Your task to perform on an android device: Open the calendar app, open the side menu, and click the "Day" option Image 0: 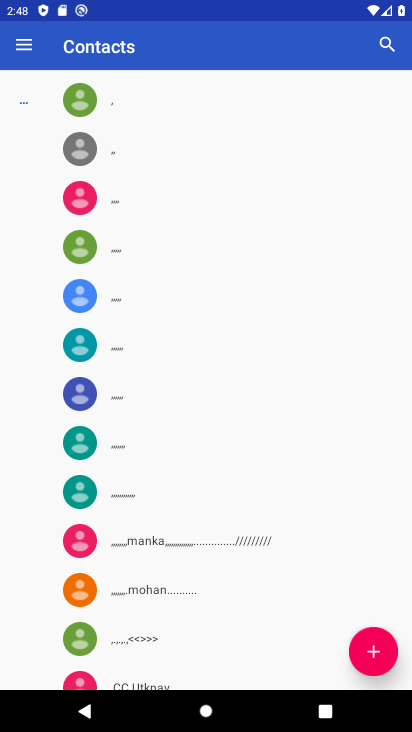
Step 0: press home button
Your task to perform on an android device: Open the calendar app, open the side menu, and click the "Day" option Image 1: 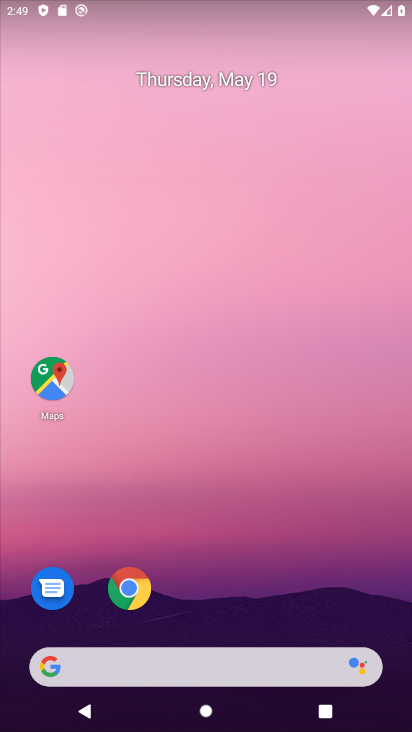
Step 1: drag from (349, 538) to (296, 206)
Your task to perform on an android device: Open the calendar app, open the side menu, and click the "Day" option Image 2: 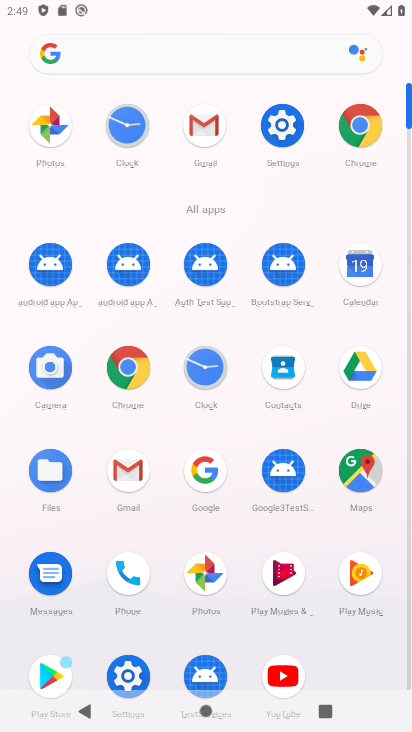
Step 2: click (376, 263)
Your task to perform on an android device: Open the calendar app, open the side menu, and click the "Day" option Image 3: 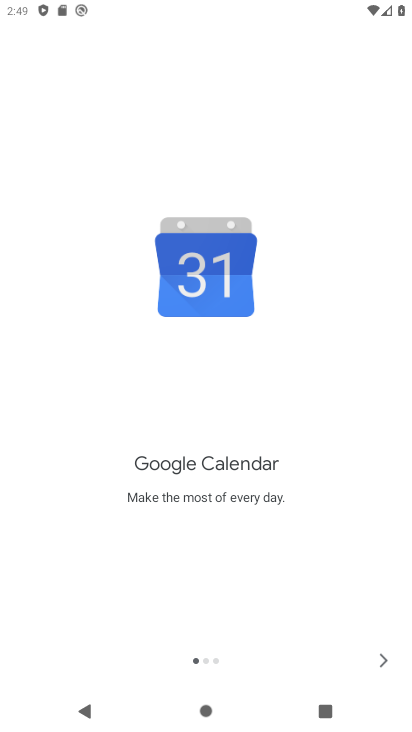
Step 3: click (378, 641)
Your task to perform on an android device: Open the calendar app, open the side menu, and click the "Day" option Image 4: 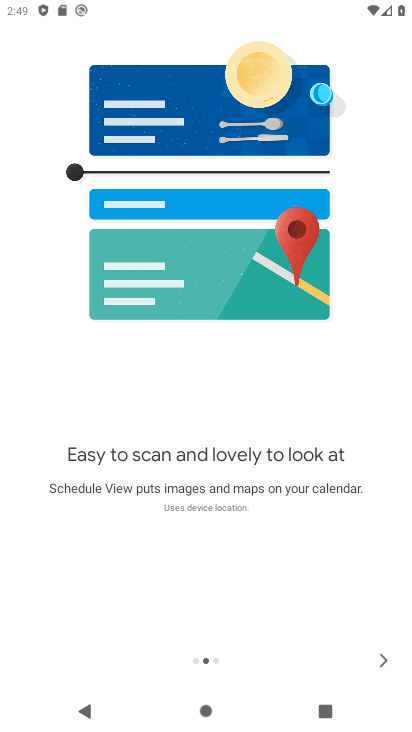
Step 4: click (385, 657)
Your task to perform on an android device: Open the calendar app, open the side menu, and click the "Day" option Image 5: 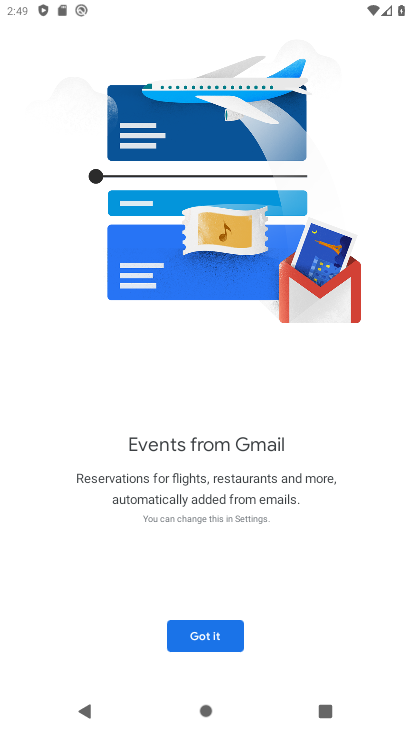
Step 5: click (385, 657)
Your task to perform on an android device: Open the calendar app, open the side menu, and click the "Day" option Image 6: 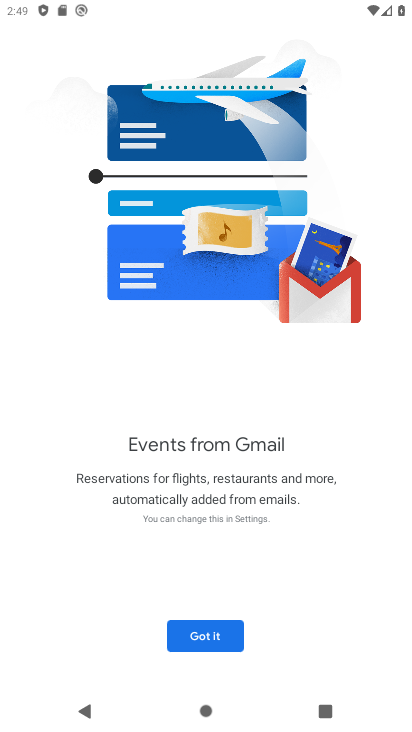
Step 6: click (205, 628)
Your task to perform on an android device: Open the calendar app, open the side menu, and click the "Day" option Image 7: 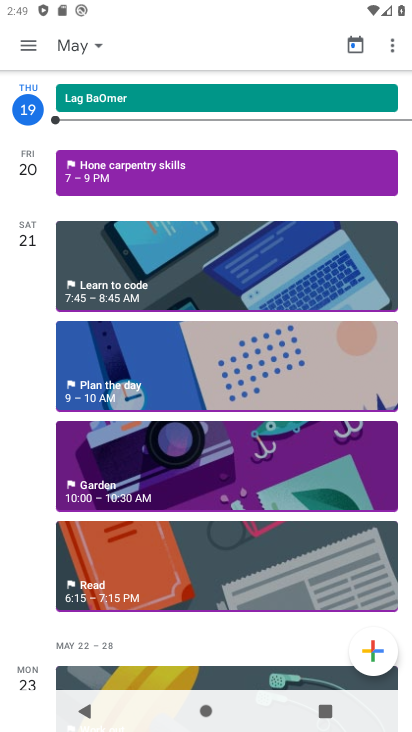
Step 7: click (27, 57)
Your task to perform on an android device: Open the calendar app, open the side menu, and click the "Day" option Image 8: 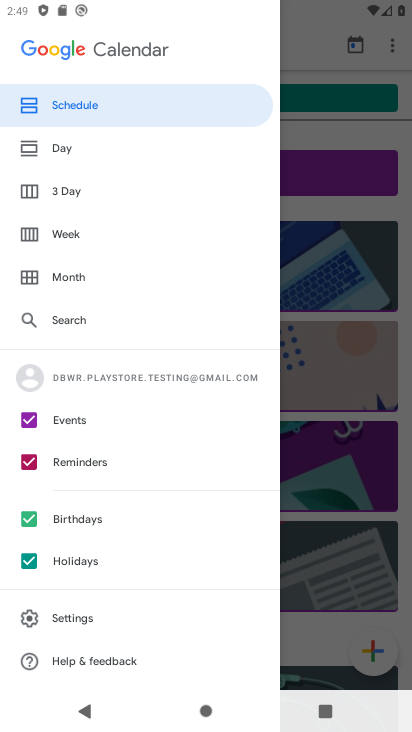
Step 8: click (74, 151)
Your task to perform on an android device: Open the calendar app, open the side menu, and click the "Day" option Image 9: 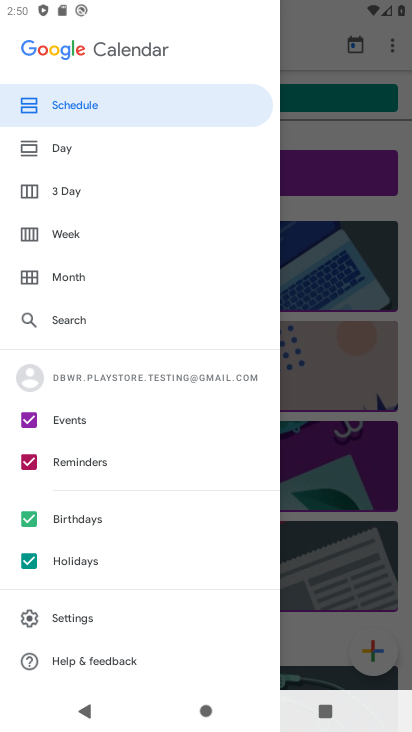
Step 9: click (60, 152)
Your task to perform on an android device: Open the calendar app, open the side menu, and click the "Day" option Image 10: 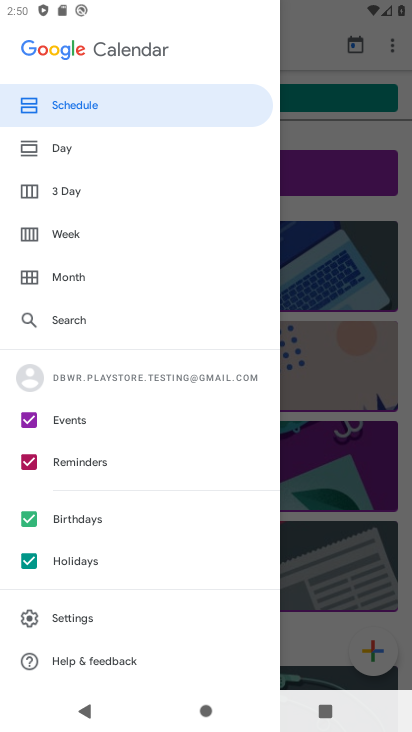
Step 10: click (17, 151)
Your task to perform on an android device: Open the calendar app, open the side menu, and click the "Day" option Image 11: 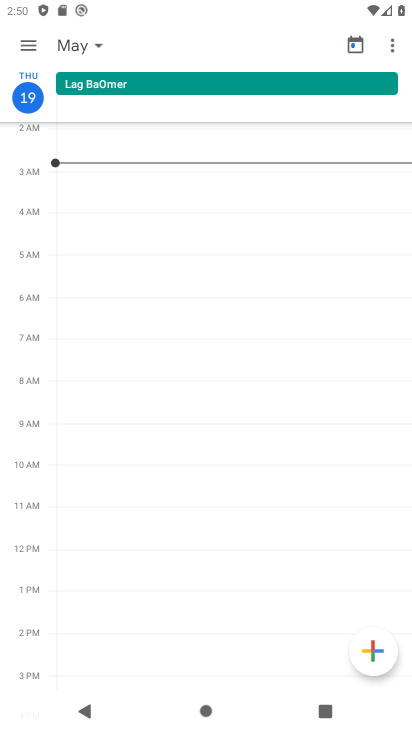
Step 11: task complete